Your task to perform on an android device: refresh tabs in the chrome app Image 0: 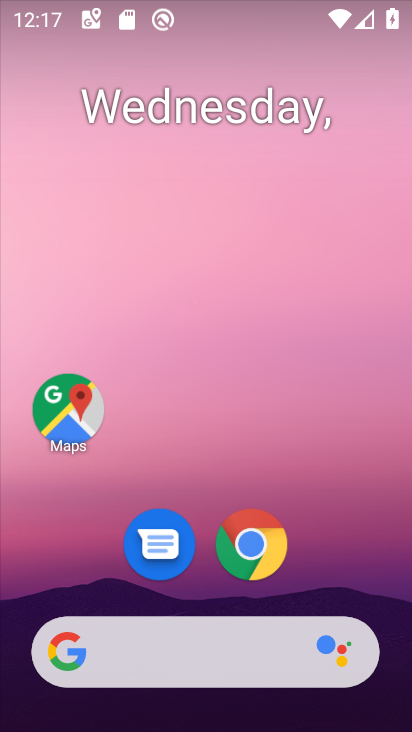
Step 0: drag from (215, 496) to (251, 181)
Your task to perform on an android device: refresh tabs in the chrome app Image 1: 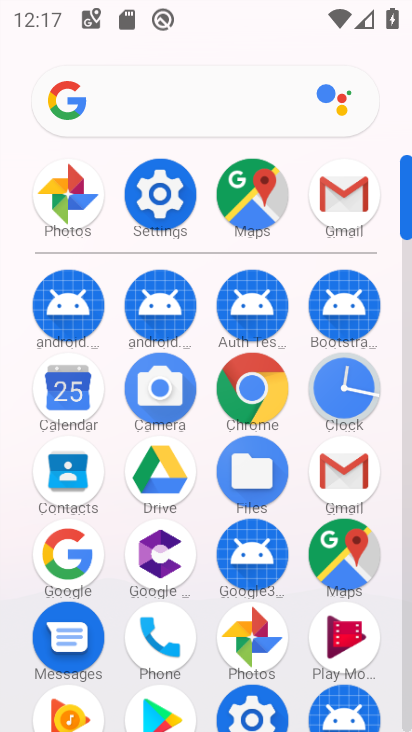
Step 1: drag from (209, 269) to (208, 159)
Your task to perform on an android device: refresh tabs in the chrome app Image 2: 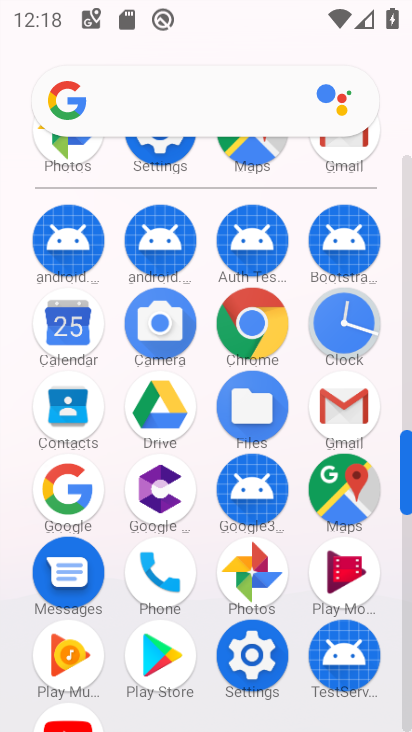
Step 2: click (238, 336)
Your task to perform on an android device: refresh tabs in the chrome app Image 3: 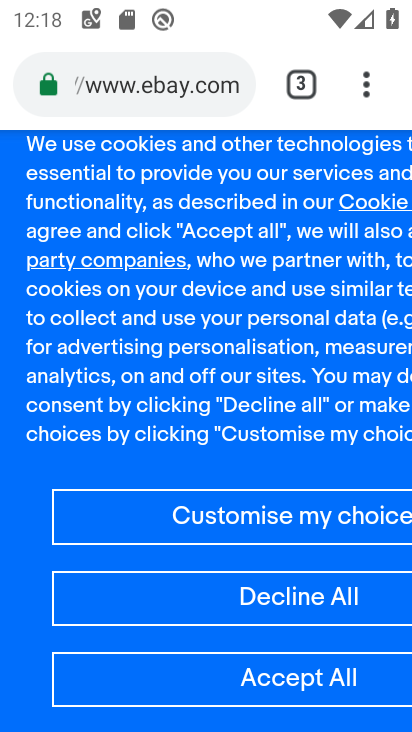
Step 3: click (375, 94)
Your task to perform on an android device: refresh tabs in the chrome app Image 4: 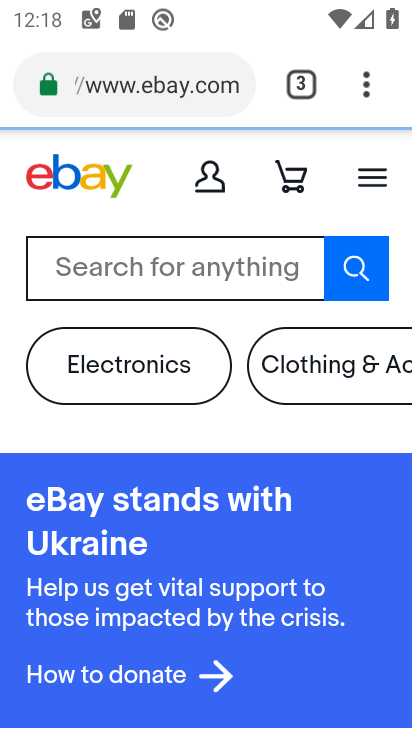
Step 4: click (371, 96)
Your task to perform on an android device: refresh tabs in the chrome app Image 5: 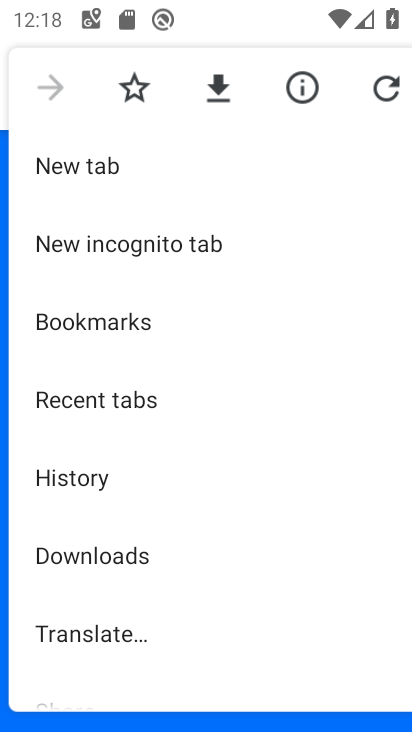
Step 5: click (380, 96)
Your task to perform on an android device: refresh tabs in the chrome app Image 6: 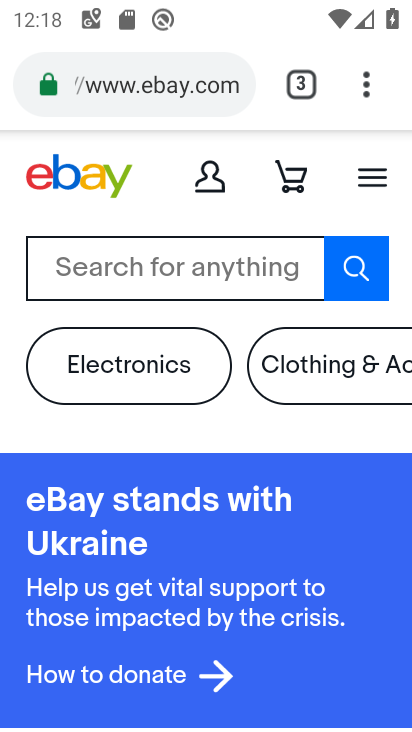
Step 6: task complete